Your task to perform on an android device: turn on javascript in the chrome app Image 0: 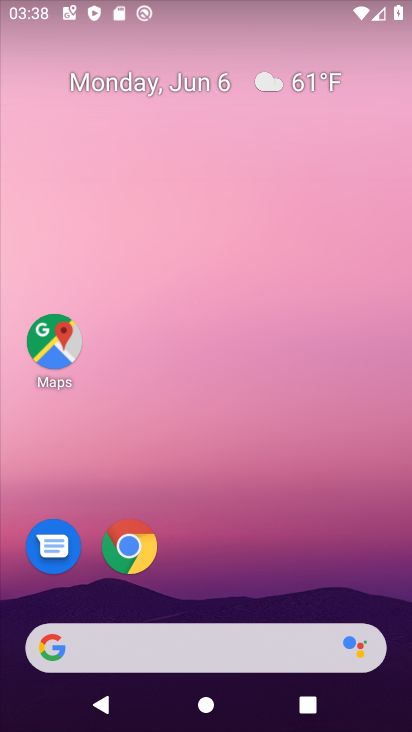
Step 0: click (127, 546)
Your task to perform on an android device: turn on javascript in the chrome app Image 1: 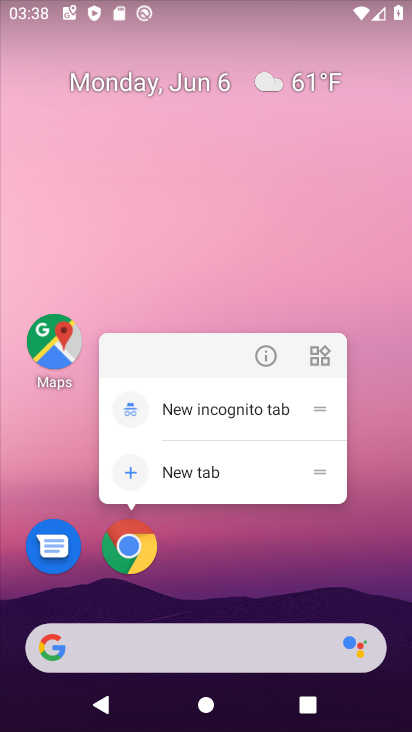
Step 1: click (127, 541)
Your task to perform on an android device: turn on javascript in the chrome app Image 2: 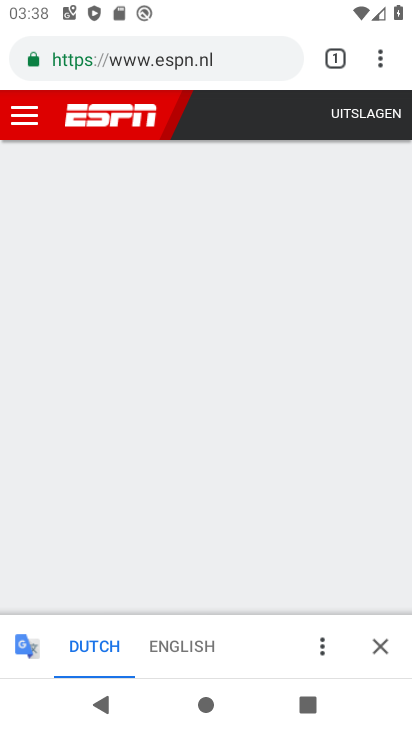
Step 2: drag from (383, 55) to (214, 573)
Your task to perform on an android device: turn on javascript in the chrome app Image 3: 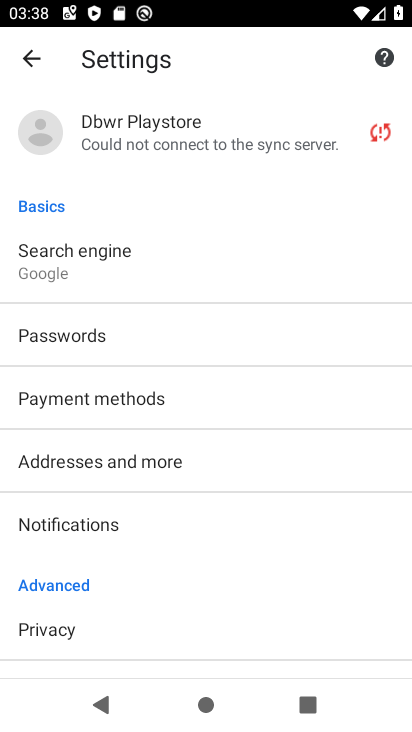
Step 3: drag from (198, 571) to (207, 34)
Your task to perform on an android device: turn on javascript in the chrome app Image 4: 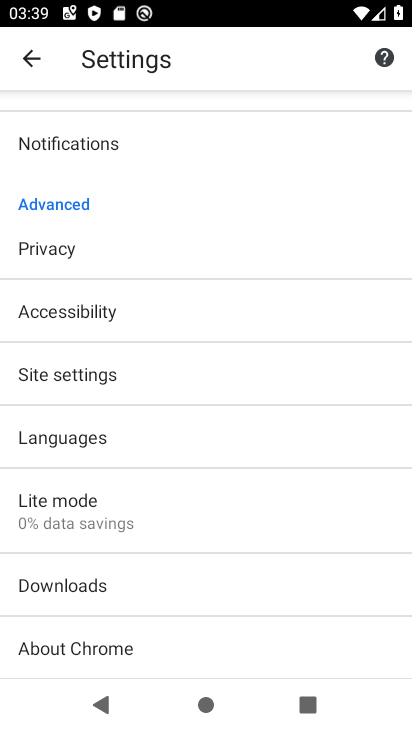
Step 4: click (51, 378)
Your task to perform on an android device: turn on javascript in the chrome app Image 5: 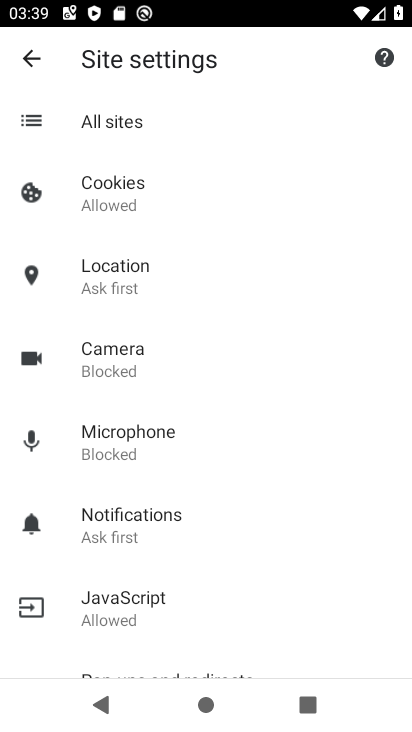
Step 5: click (118, 603)
Your task to perform on an android device: turn on javascript in the chrome app Image 6: 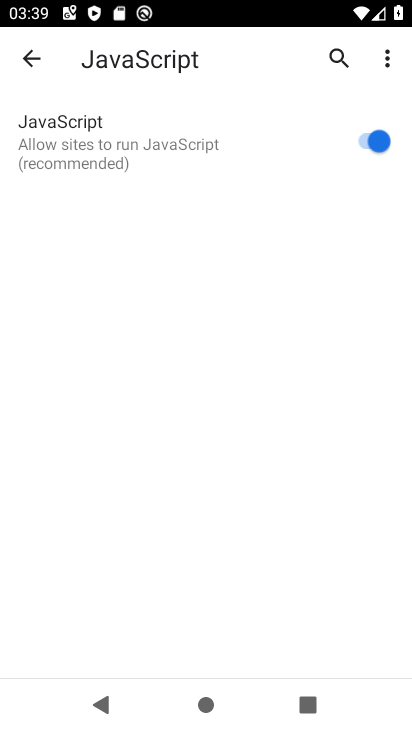
Step 6: task complete